Your task to perform on an android device: open app "Viber Messenger" Image 0: 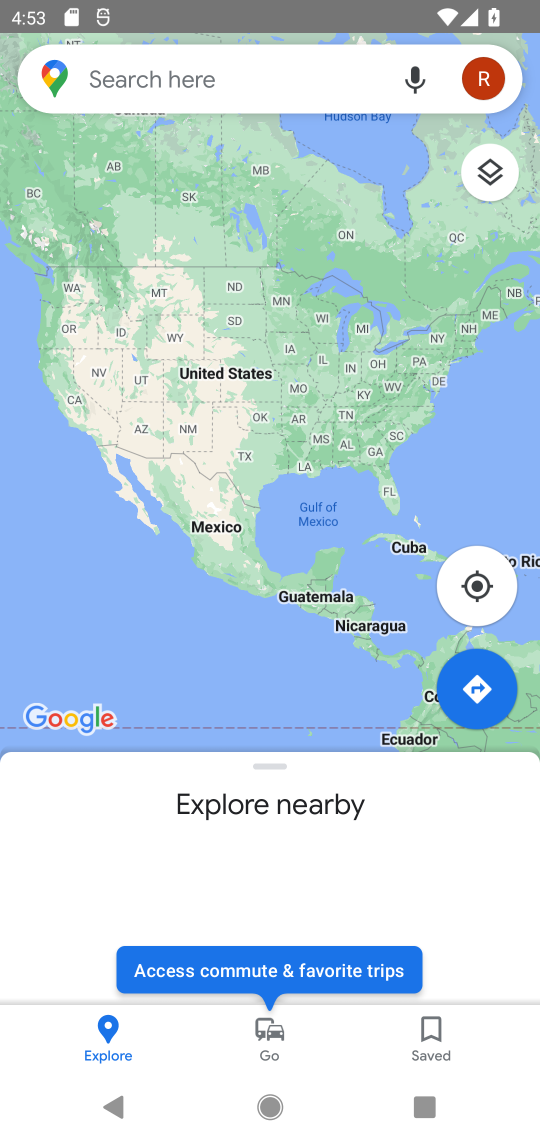
Step 0: press home button
Your task to perform on an android device: open app "Viber Messenger" Image 1: 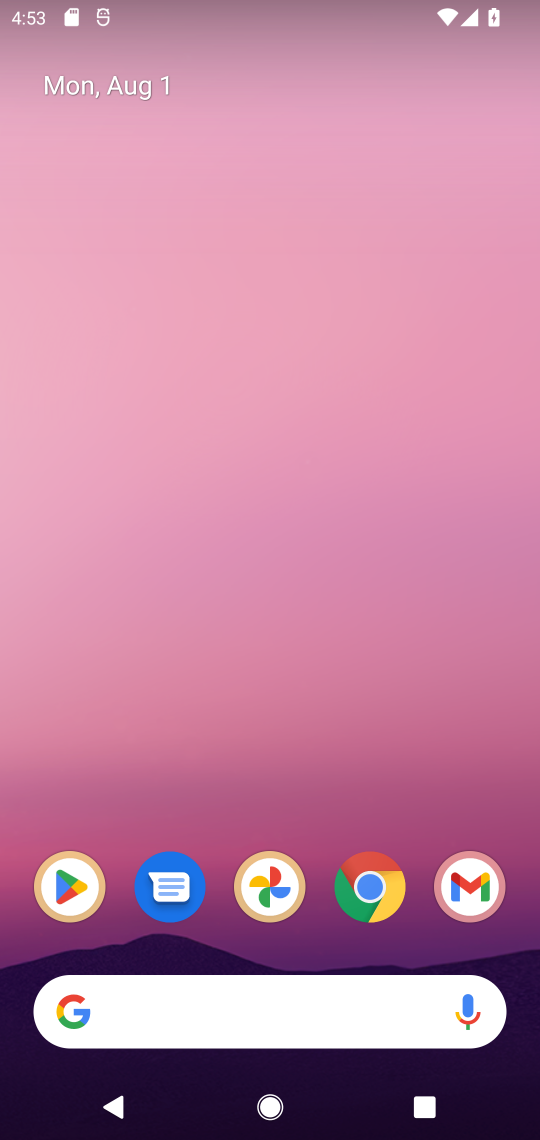
Step 1: click (76, 893)
Your task to perform on an android device: open app "Viber Messenger" Image 2: 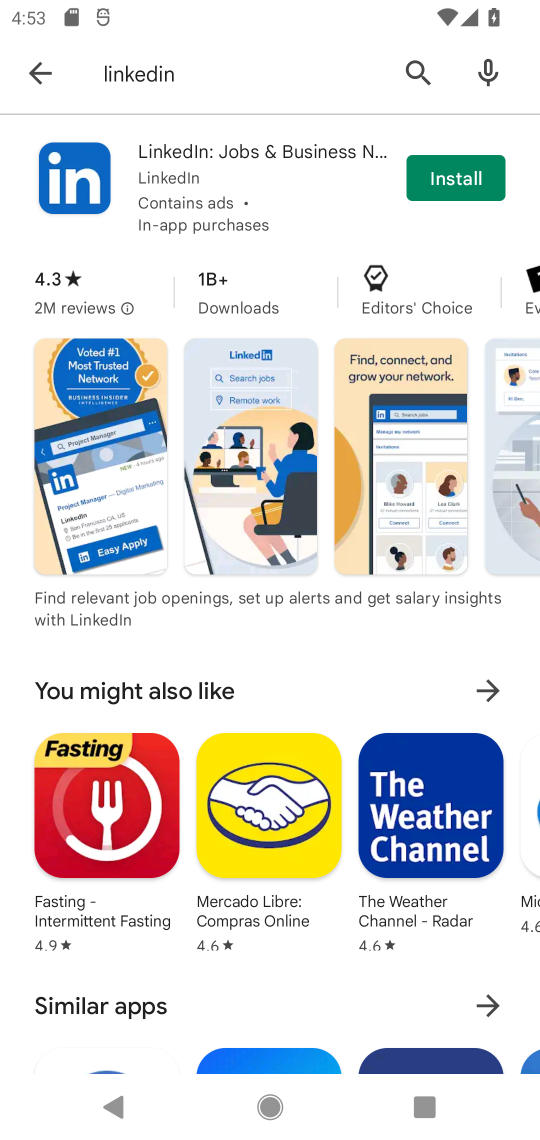
Step 2: click (43, 68)
Your task to perform on an android device: open app "Viber Messenger" Image 3: 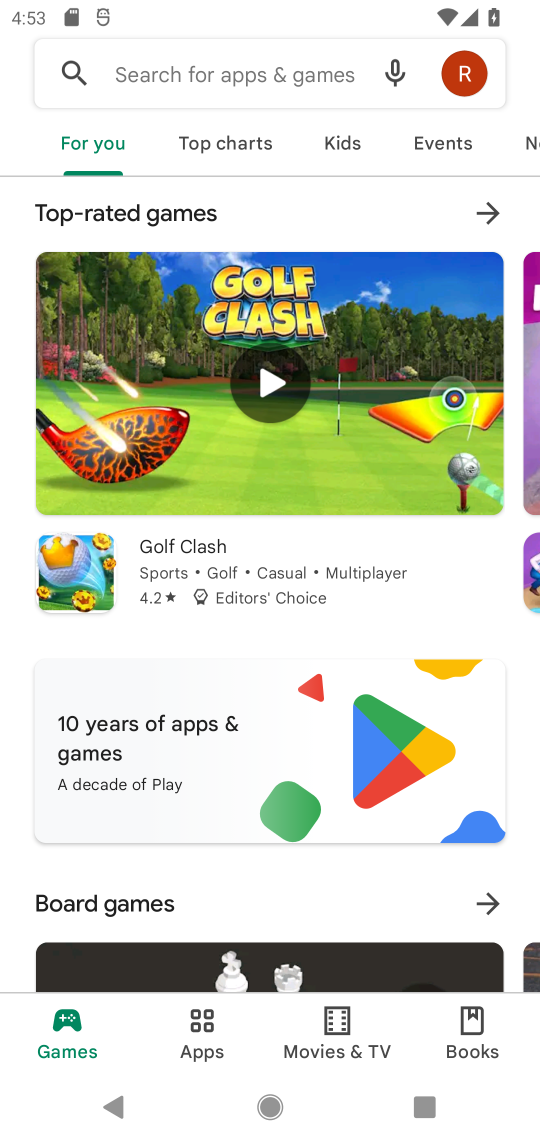
Step 3: click (174, 57)
Your task to perform on an android device: open app "Viber Messenger" Image 4: 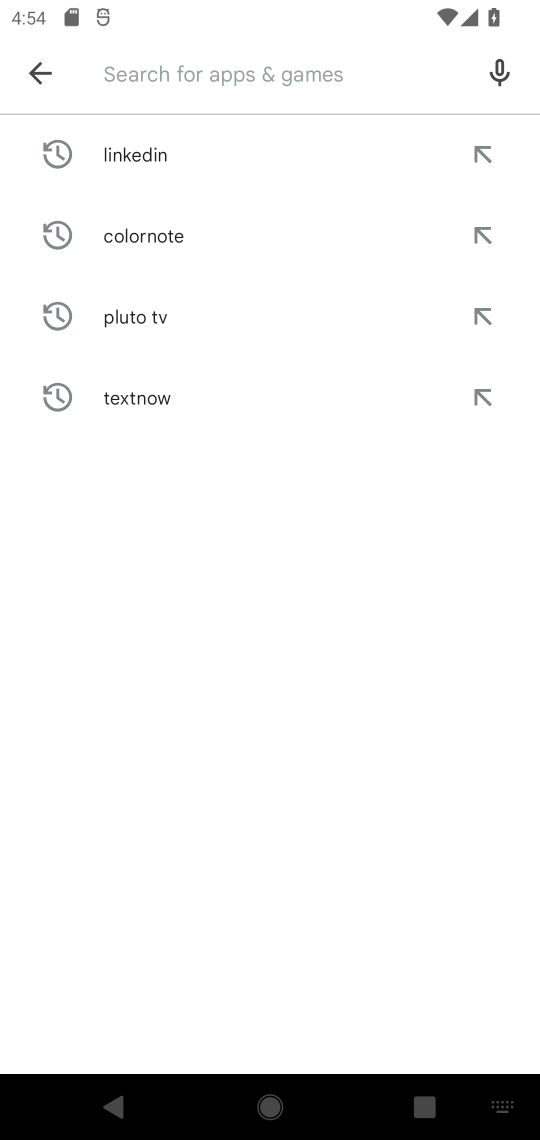
Step 4: type "Viber Messenger"
Your task to perform on an android device: open app "Viber Messenger" Image 5: 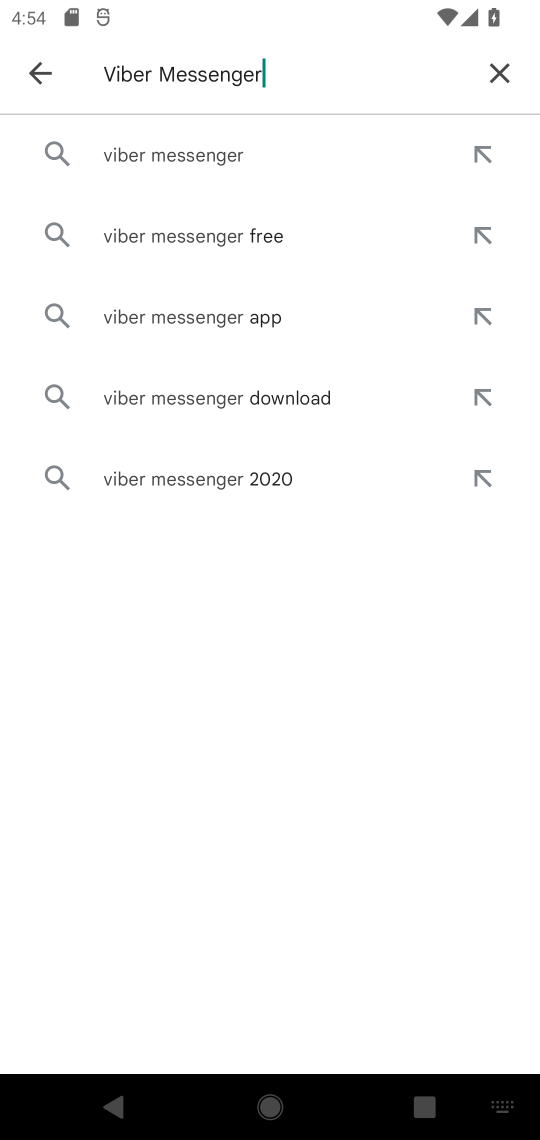
Step 5: click (137, 170)
Your task to perform on an android device: open app "Viber Messenger" Image 6: 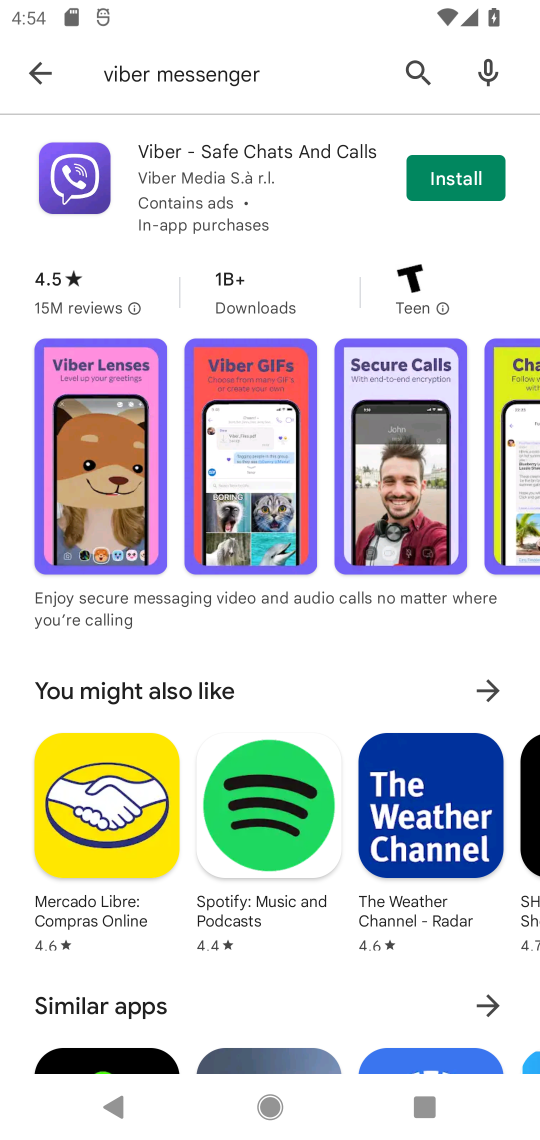
Step 6: drag from (137, 170) to (155, 682)
Your task to perform on an android device: open app "Viber Messenger" Image 7: 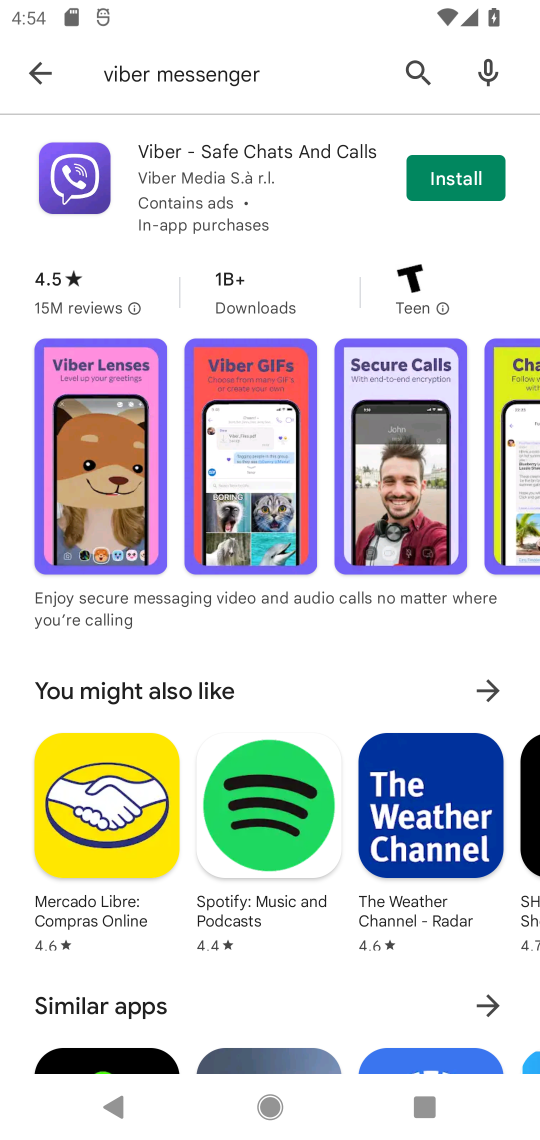
Step 7: click (102, 211)
Your task to perform on an android device: open app "Viber Messenger" Image 8: 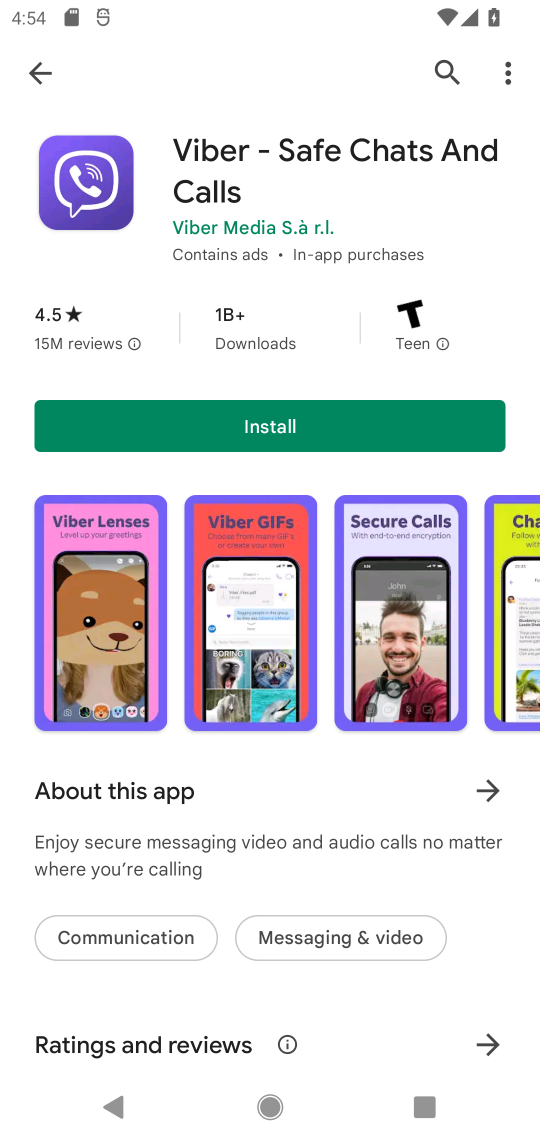
Step 8: task complete